Your task to perform on an android device: toggle sleep mode Image 0: 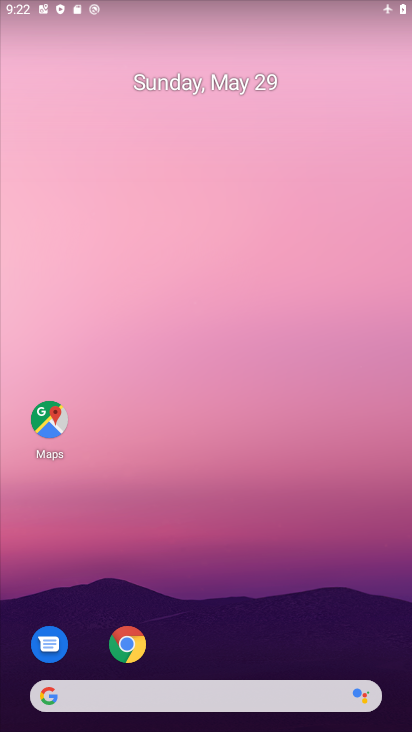
Step 0: drag from (225, 567) to (248, 270)
Your task to perform on an android device: toggle sleep mode Image 1: 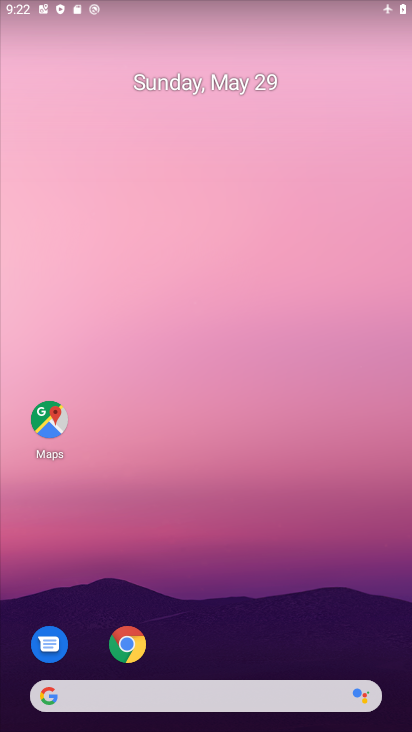
Step 1: drag from (254, 644) to (310, 217)
Your task to perform on an android device: toggle sleep mode Image 2: 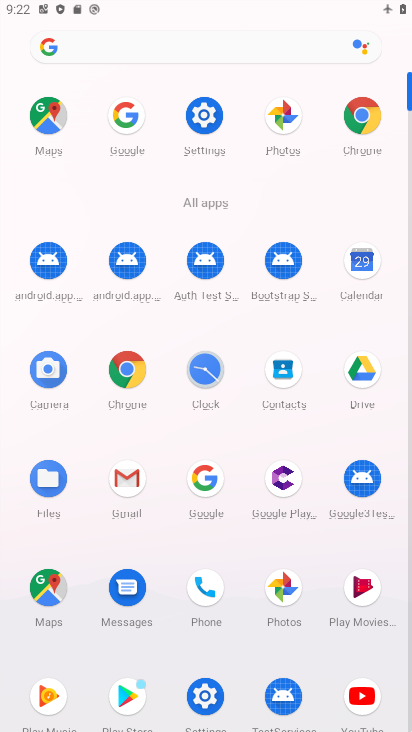
Step 2: click (200, 118)
Your task to perform on an android device: toggle sleep mode Image 3: 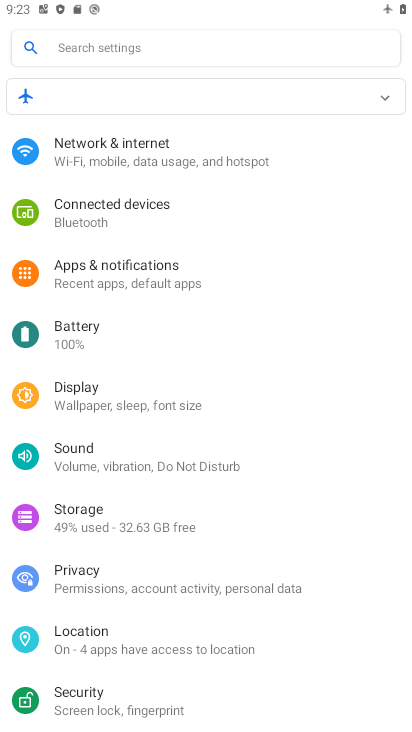
Step 3: task complete